Your task to perform on an android device: Open Yahoo.com Image 0: 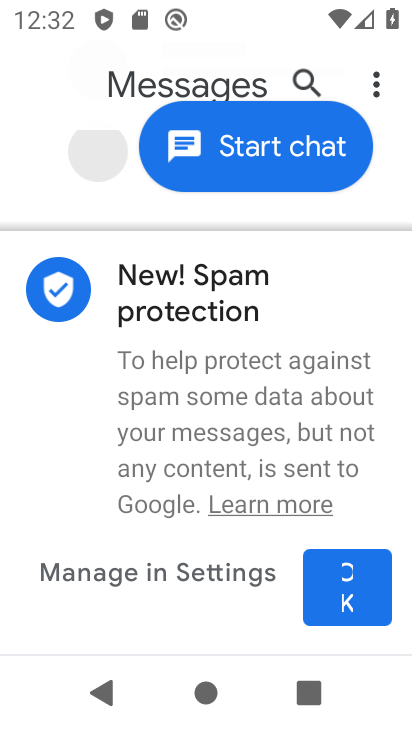
Step 0: press back button
Your task to perform on an android device: Open Yahoo.com Image 1: 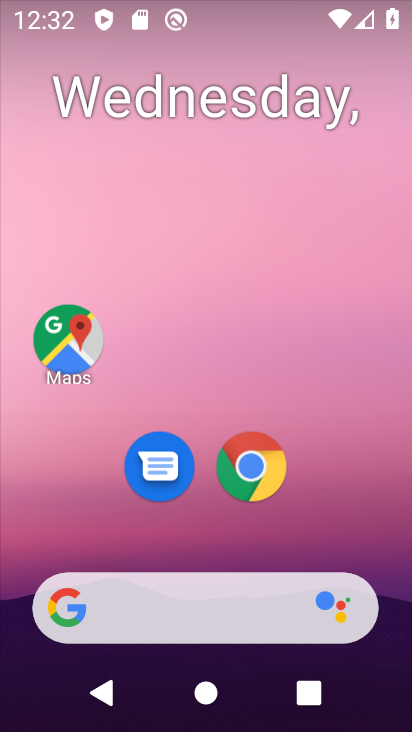
Step 1: click (252, 466)
Your task to perform on an android device: Open Yahoo.com Image 2: 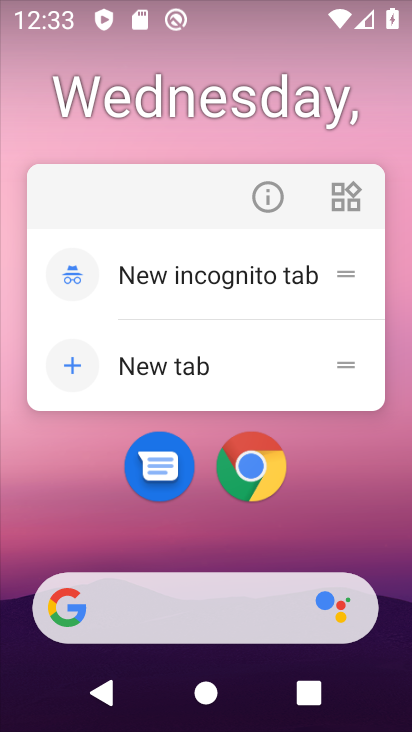
Step 2: click (252, 466)
Your task to perform on an android device: Open Yahoo.com Image 3: 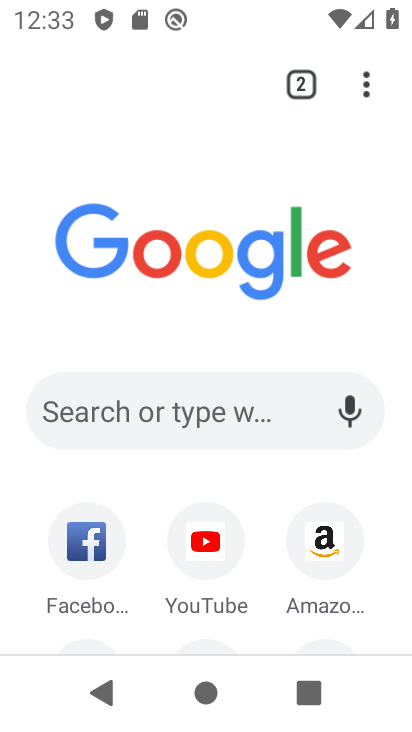
Step 3: click (201, 414)
Your task to perform on an android device: Open Yahoo.com Image 4: 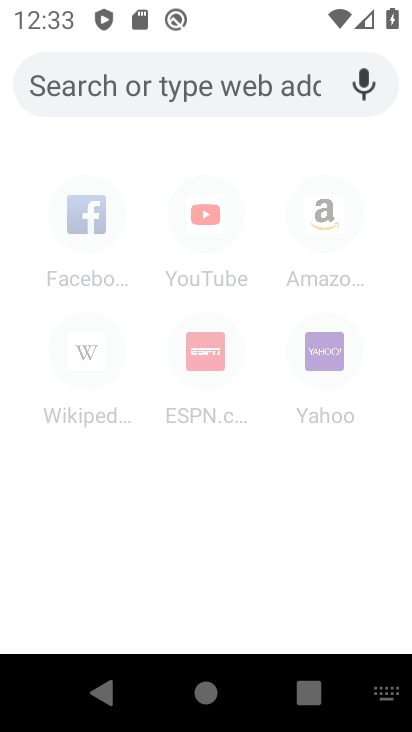
Step 4: type "Yahoo.com"
Your task to perform on an android device: Open Yahoo.com Image 5: 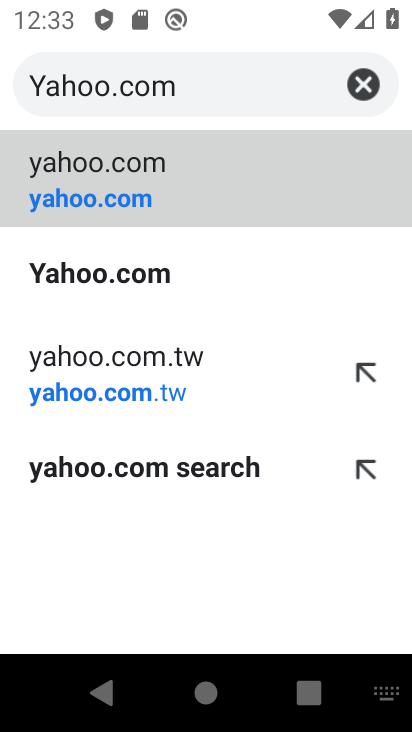
Step 5: click (116, 275)
Your task to perform on an android device: Open Yahoo.com Image 6: 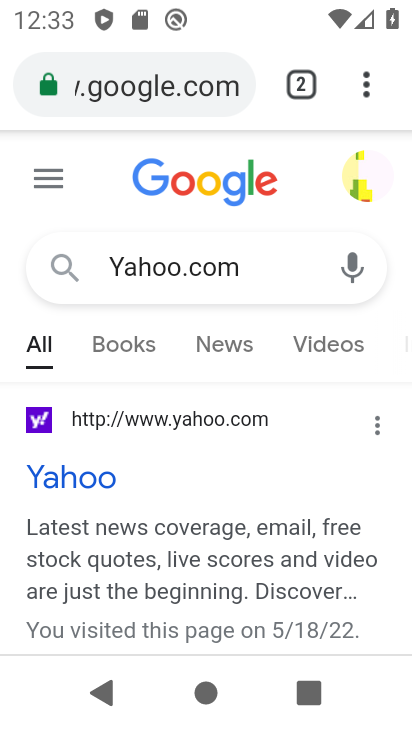
Step 6: click (146, 420)
Your task to perform on an android device: Open Yahoo.com Image 7: 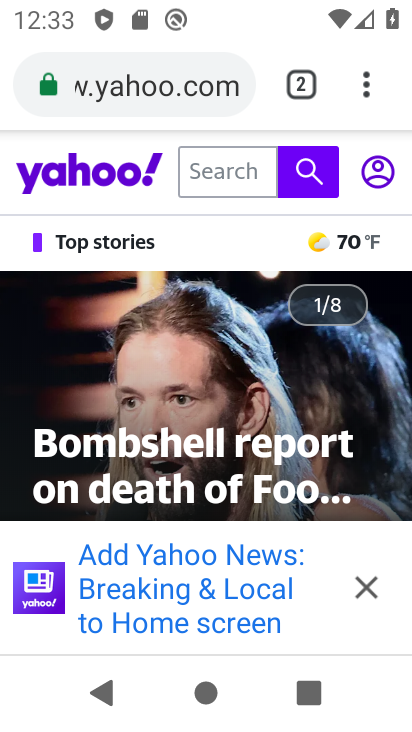
Step 7: task complete